Your task to perform on an android device: stop showing notifications on the lock screen Image 0: 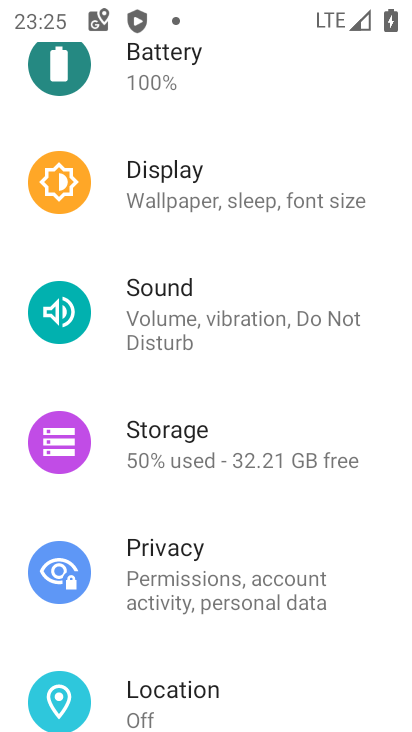
Step 0: press home button
Your task to perform on an android device: stop showing notifications on the lock screen Image 1: 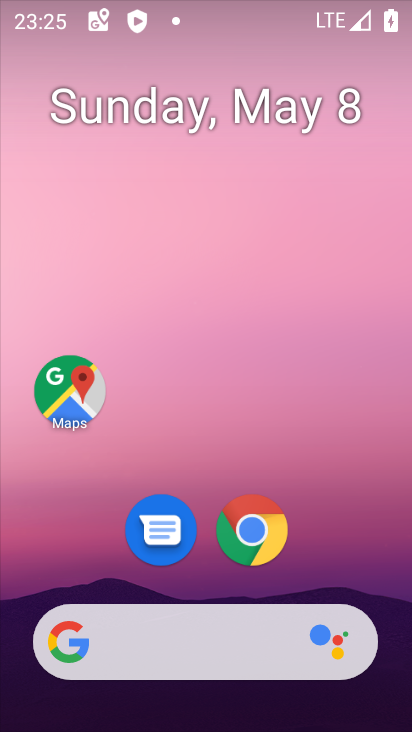
Step 1: drag from (374, 563) to (372, 98)
Your task to perform on an android device: stop showing notifications on the lock screen Image 2: 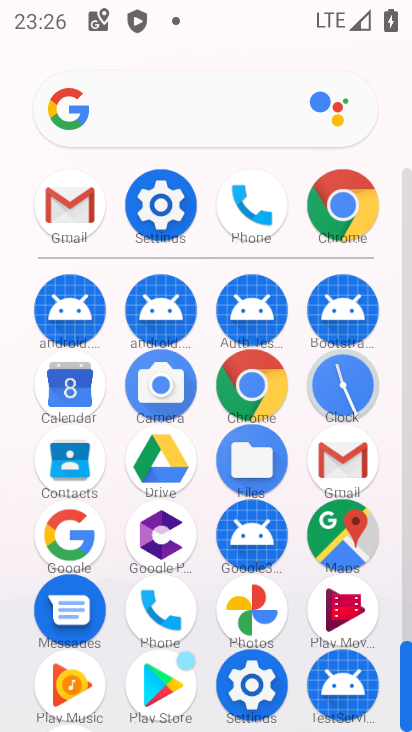
Step 2: click (158, 178)
Your task to perform on an android device: stop showing notifications on the lock screen Image 3: 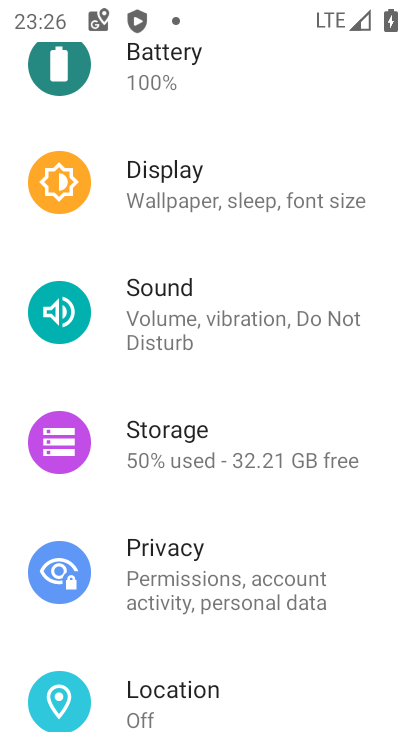
Step 3: drag from (270, 224) to (253, 495)
Your task to perform on an android device: stop showing notifications on the lock screen Image 4: 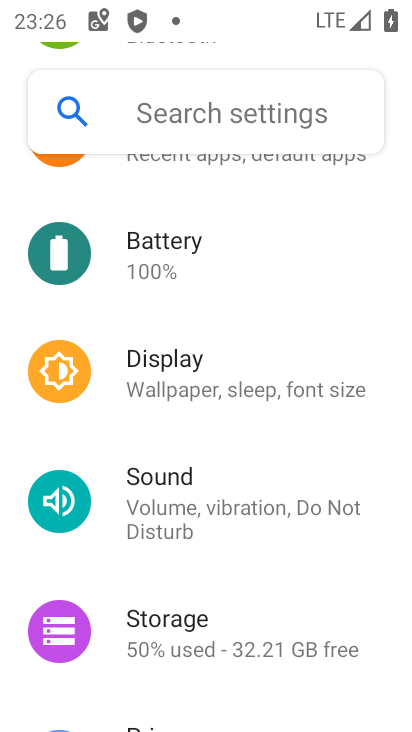
Step 4: drag from (284, 299) to (283, 545)
Your task to perform on an android device: stop showing notifications on the lock screen Image 5: 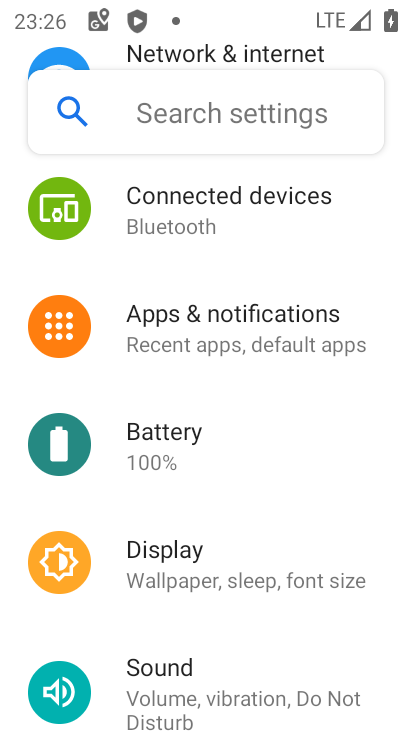
Step 5: drag from (244, 260) to (263, 475)
Your task to perform on an android device: stop showing notifications on the lock screen Image 6: 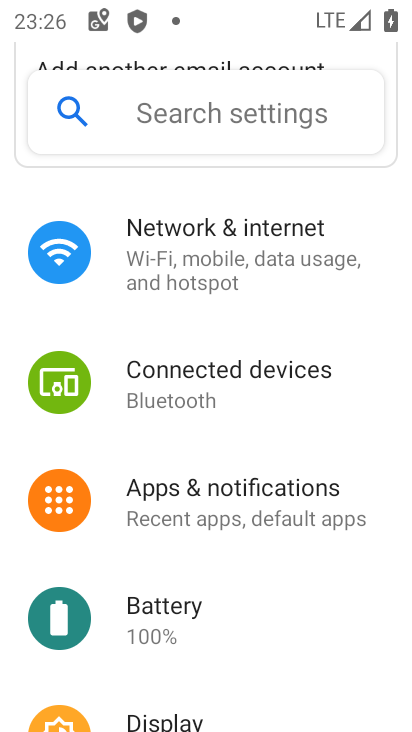
Step 6: click (241, 509)
Your task to perform on an android device: stop showing notifications on the lock screen Image 7: 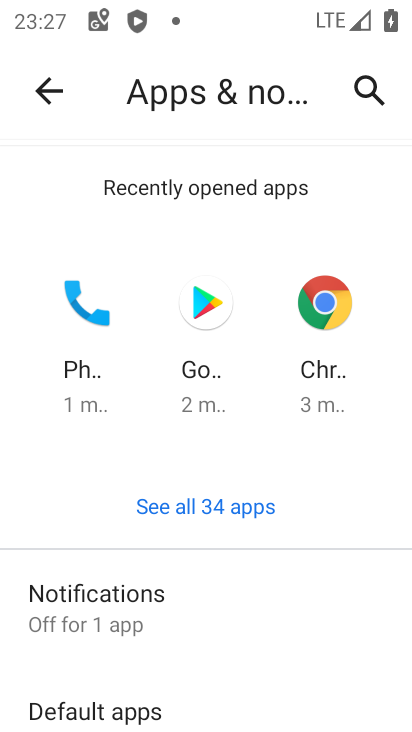
Step 7: drag from (212, 634) to (268, 272)
Your task to perform on an android device: stop showing notifications on the lock screen Image 8: 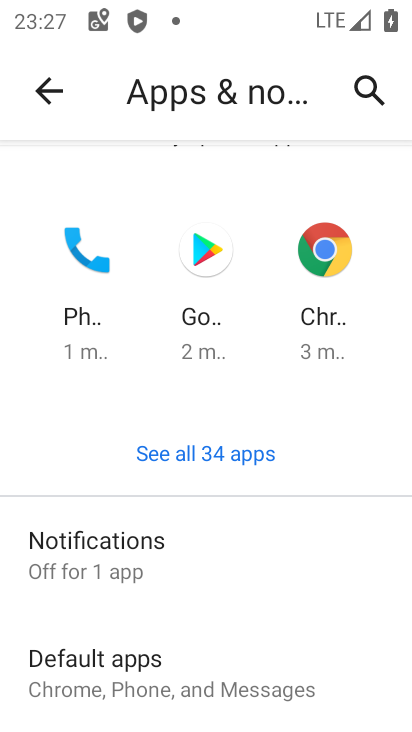
Step 8: drag from (140, 609) to (216, 276)
Your task to perform on an android device: stop showing notifications on the lock screen Image 9: 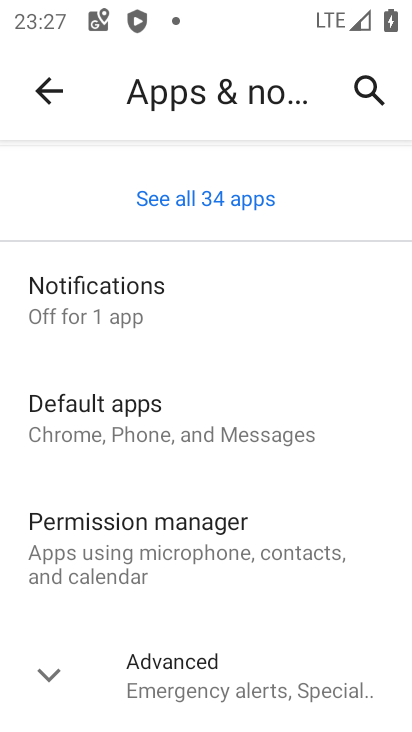
Step 9: click (126, 297)
Your task to perform on an android device: stop showing notifications on the lock screen Image 10: 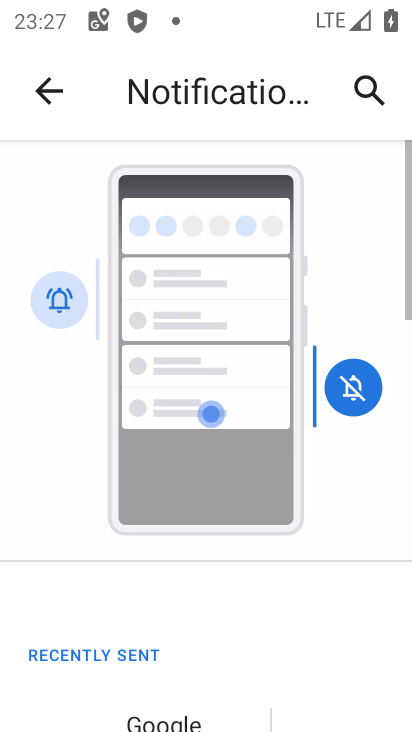
Step 10: drag from (269, 628) to (307, 319)
Your task to perform on an android device: stop showing notifications on the lock screen Image 11: 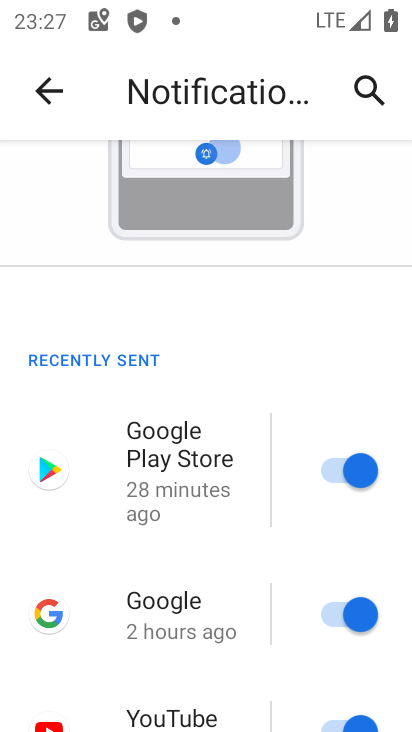
Step 11: drag from (245, 613) to (307, 231)
Your task to perform on an android device: stop showing notifications on the lock screen Image 12: 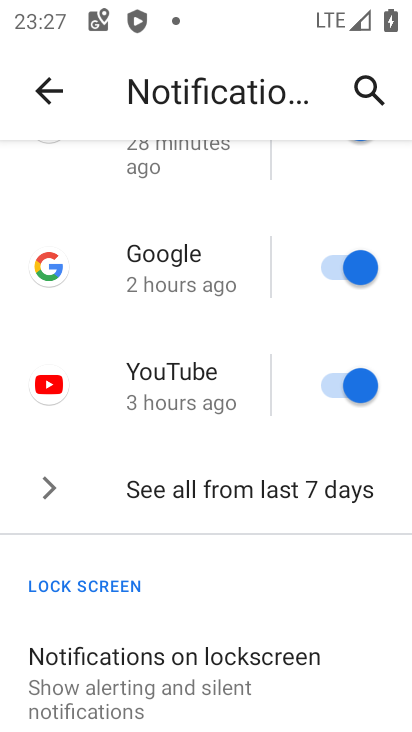
Step 12: click (187, 680)
Your task to perform on an android device: stop showing notifications on the lock screen Image 13: 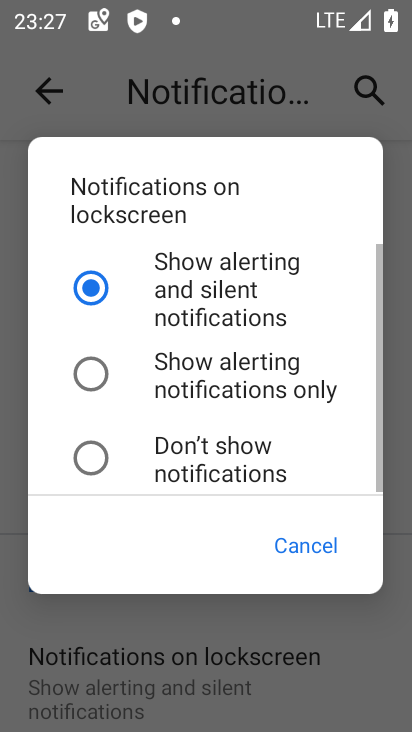
Step 13: click (93, 457)
Your task to perform on an android device: stop showing notifications on the lock screen Image 14: 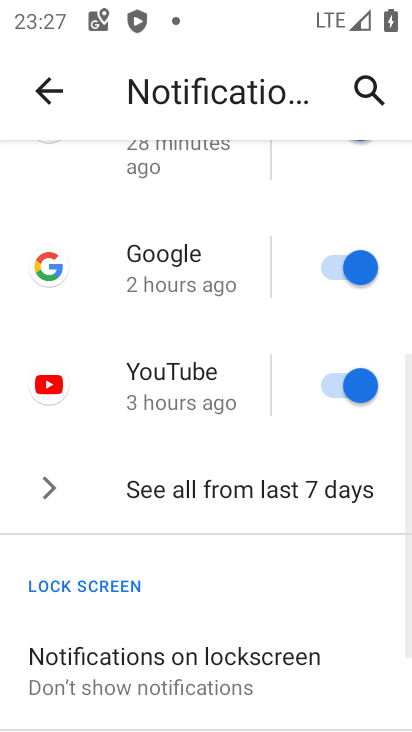
Step 14: task complete